Your task to perform on an android device: Set the phone to "Do not disturb". Image 0: 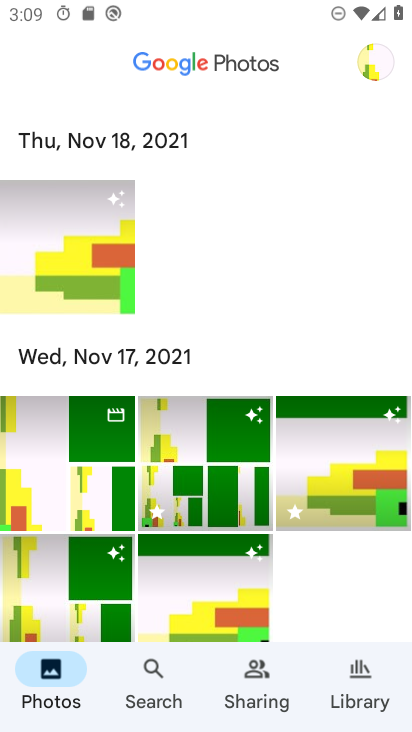
Step 0: press home button
Your task to perform on an android device: Set the phone to "Do not disturb". Image 1: 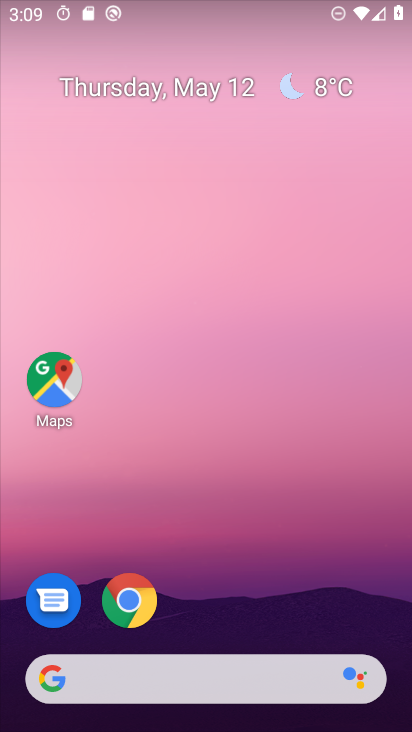
Step 1: drag from (200, 651) to (198, 165)
Your task to perform on an android device: Set the phone to "Do not disturb". Image 2: 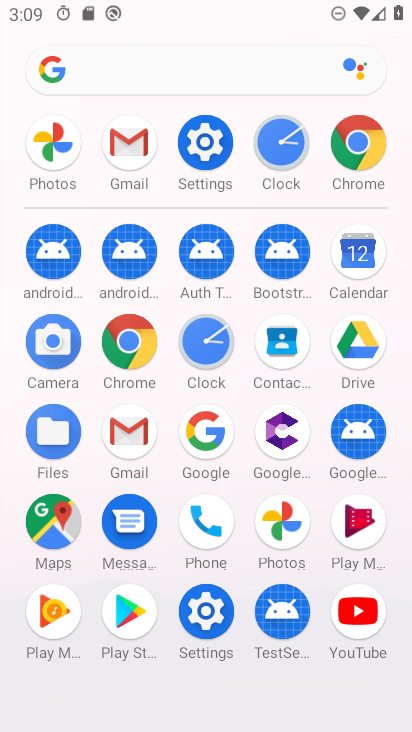
Step 2: click (207, 140)
Your task to perform on an android device: Set the phone to "Do not disturb". Image 3: 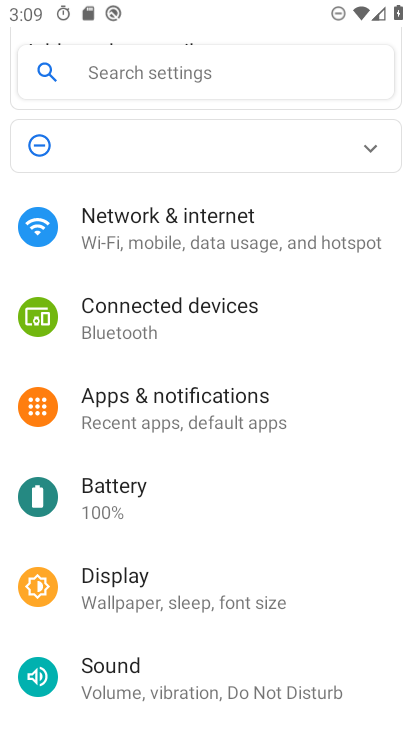
Step 3: drag from (158, 683) to (167, 343)
Your task to perform on an android device: Set the phone to "Do not disturb". Image 4: 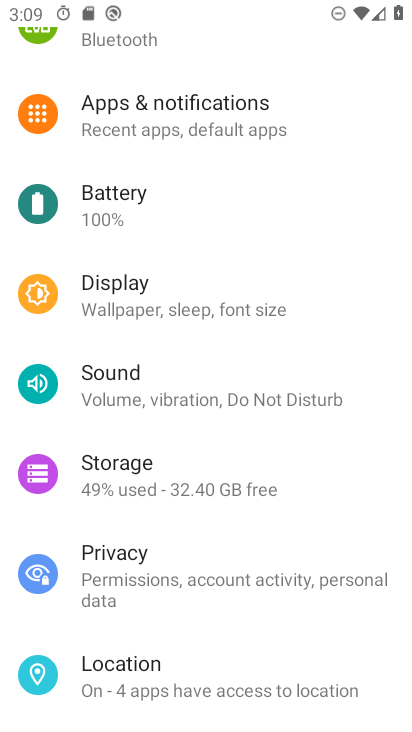
Step 4: click (150, 400)
Your task to perform on an android device: Set the phone to "Do not disturb". Image 5: 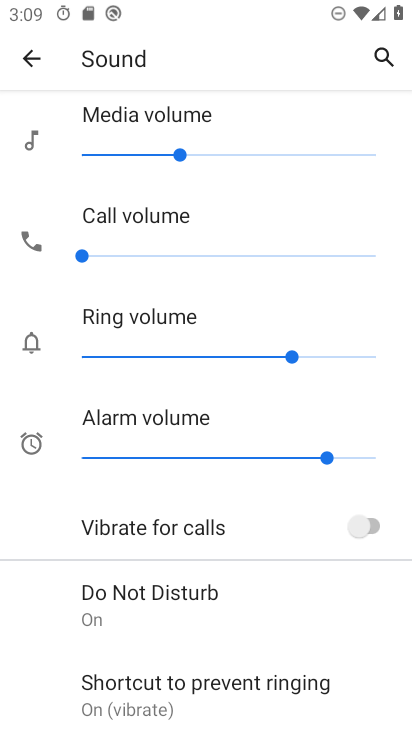
Step 5: click (163, 594)
Your task to perform on an android device: Set the phone to "Do not disturb". Image 6: 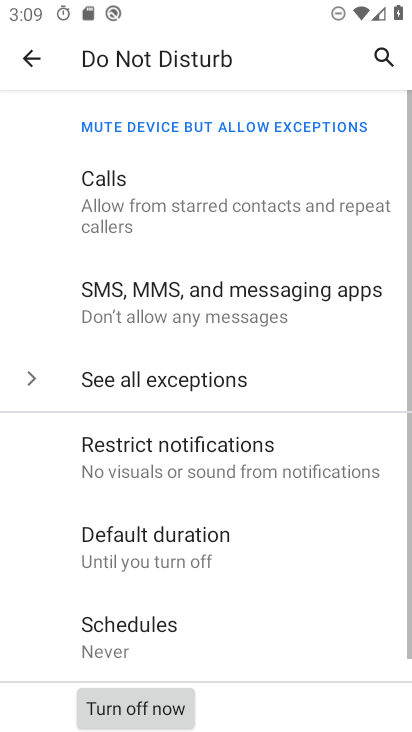
Step 6: task complete